Your task to perform on an android device: open app "Airtel Thanks" (install if not already installed), go to login, and select forgot password Image 0: 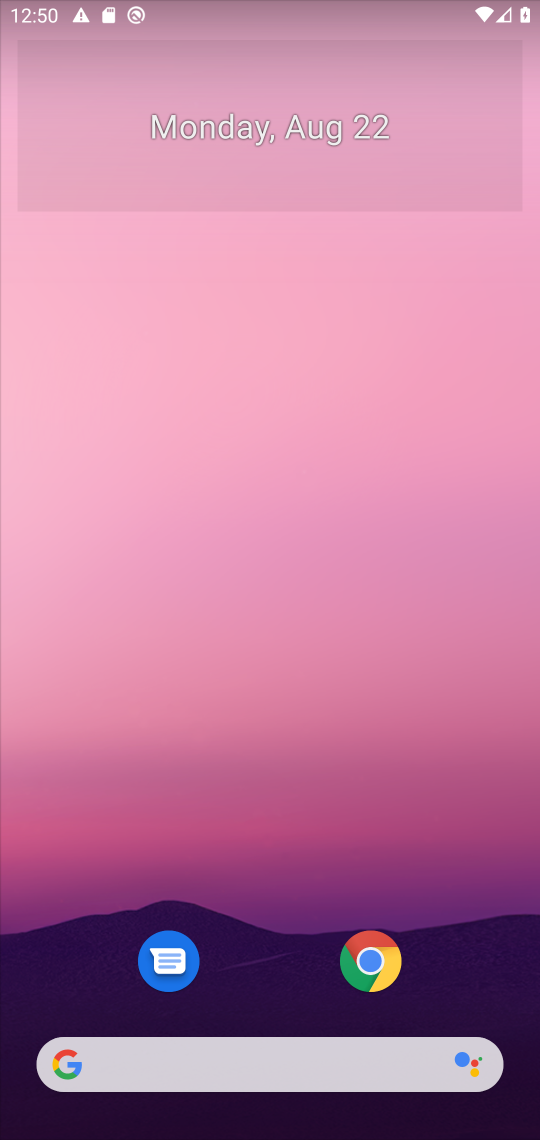
Step 0: press home button
Your task to perform on an android device: open app "Airtel Thanks" (install if not already installed), go to login, and select forgot password Image 1: 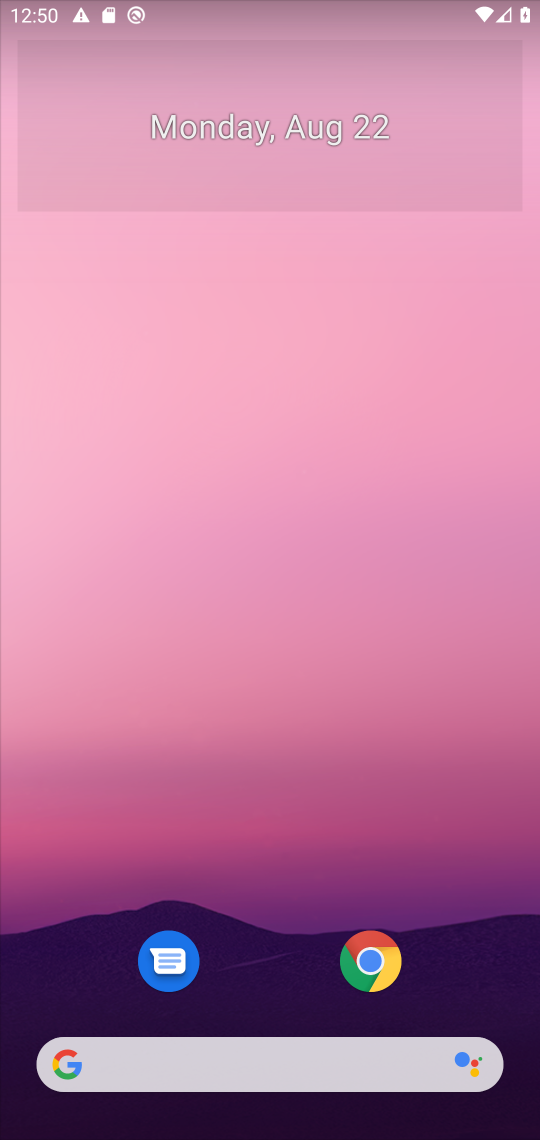
Step 1: drag from (477, 882) to (498, 136)
Your task to perform on an android device: open app "Airtel Thanks" (install if not already installed), go to login, and select forgot password Image 2: 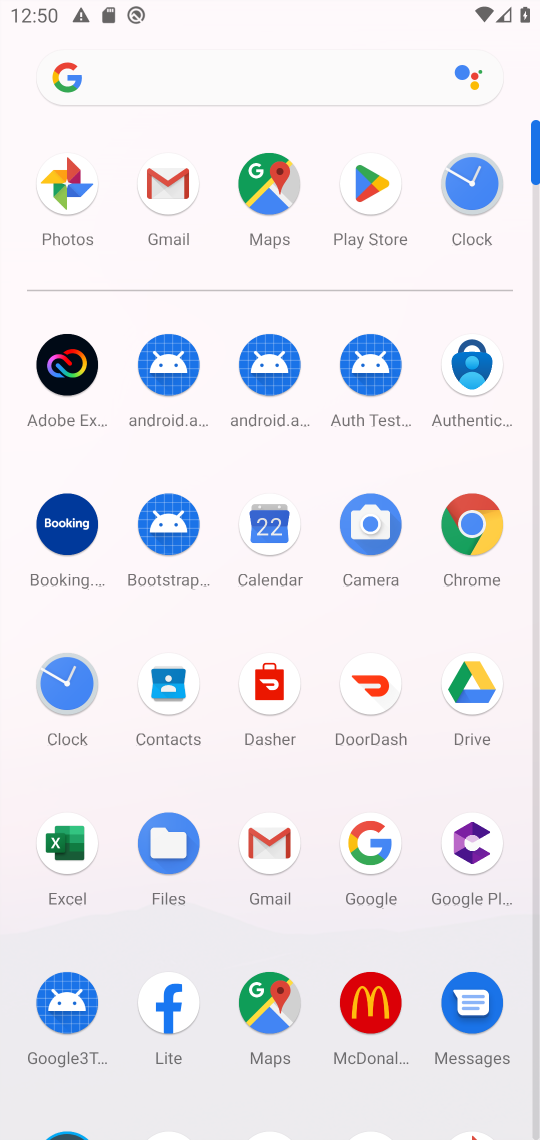
Step 2: click (370, 183)
Your task to perform on an android device: open app "Airtel Thanks" (install if not already installed), go to login, and select forgot password Image 3: 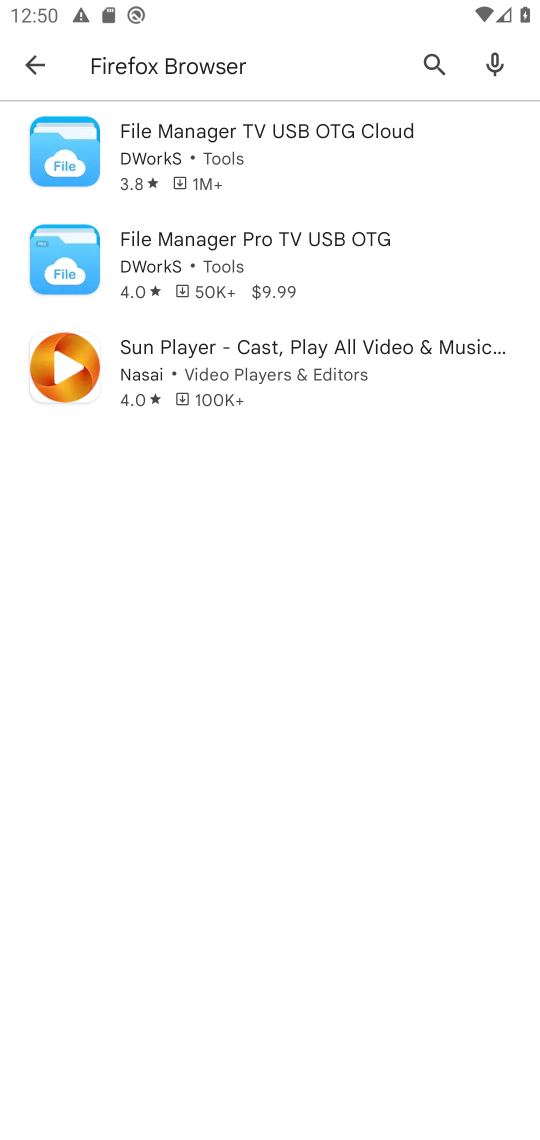
Step 3: press back button
Your task to perform on an android device: open app "Airtel Thanks" (install if not already installed), go to login, and select forgot password Image 4: 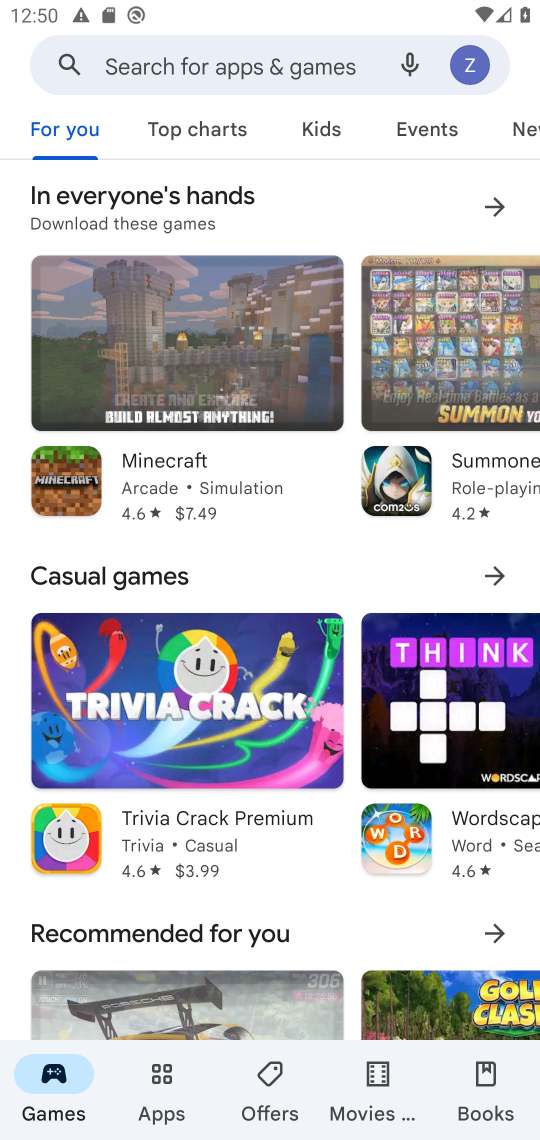
Step 4: click (271, 72)
Your task to perform on an android device: open app "Airtel Thanks" (install if not already installed), go to login, and select forgot password Image 5: 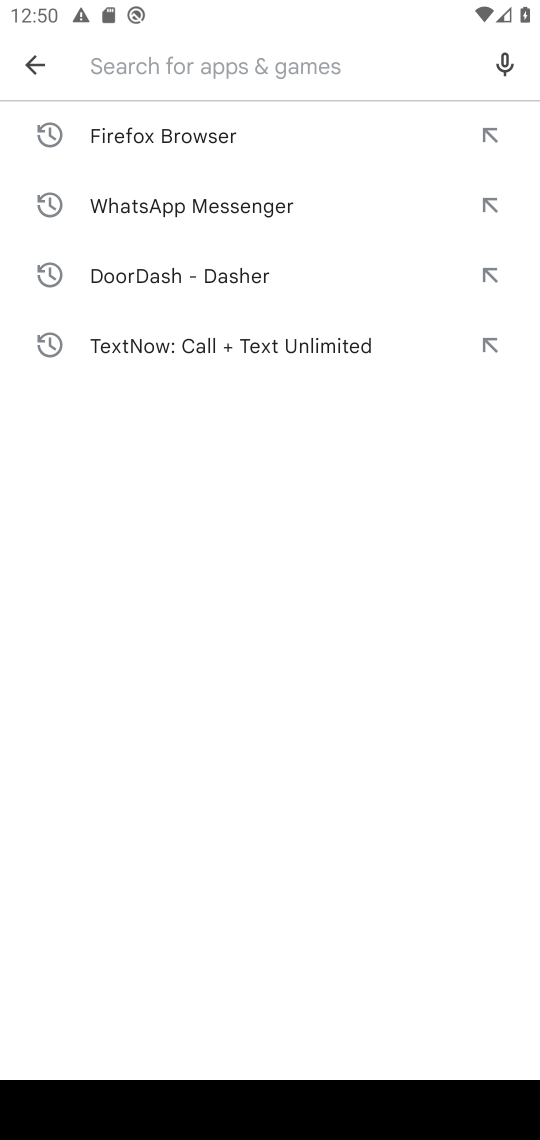
Step 5: type "Airtel Thanks"
Your task to perform on an android device: open app "Airtel Thanks" (install if not already installed), go to login, and select forgot password Image 6: 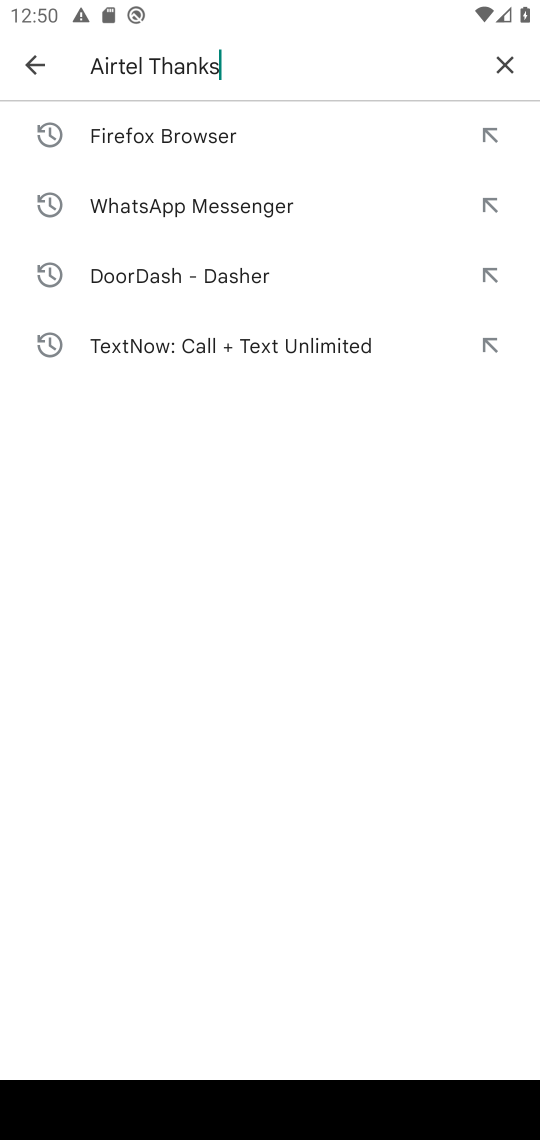
Step 6: press enter
Your task to perform on an android device: open app "Airtel Thanks" (install if not already installed), go to login, and select forgot password Image 7: 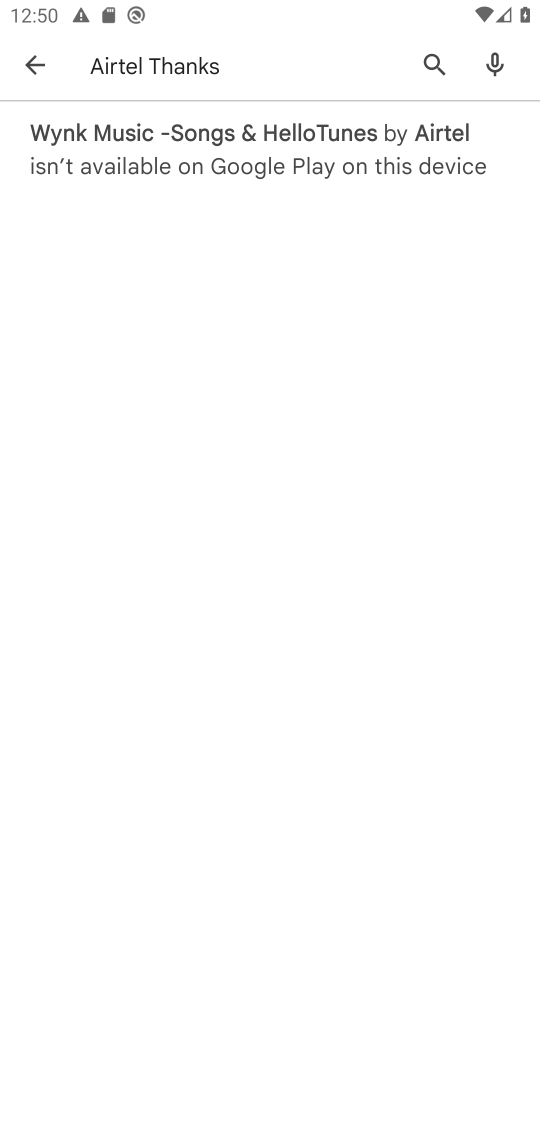
Step 7: task complete